Your task to perform on an android device: Is it going to rain this weekend? Image 0: 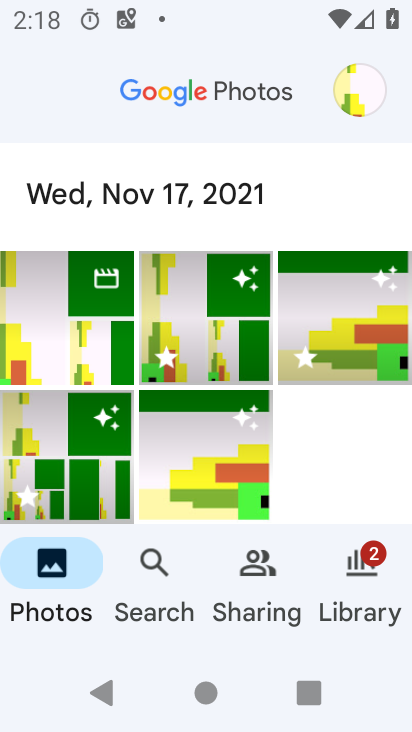
Step 0: press home button
Your task to perform on an android device: Is it going to rain this weekend? Image 1: 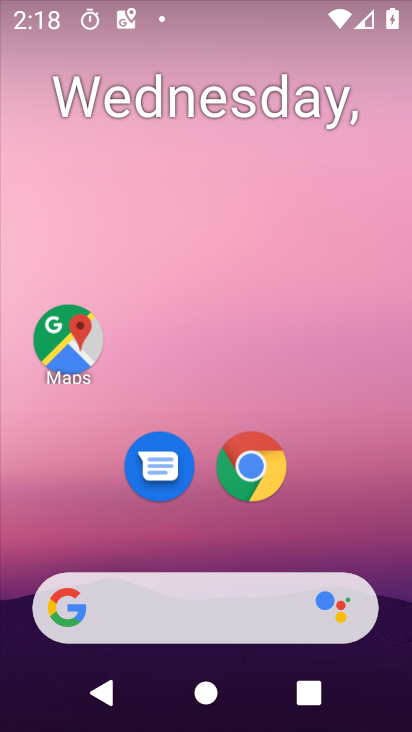
Step 1: click (194, 592)
Your task to perform on an android device: Is it going to rain this weekend? Image 2: 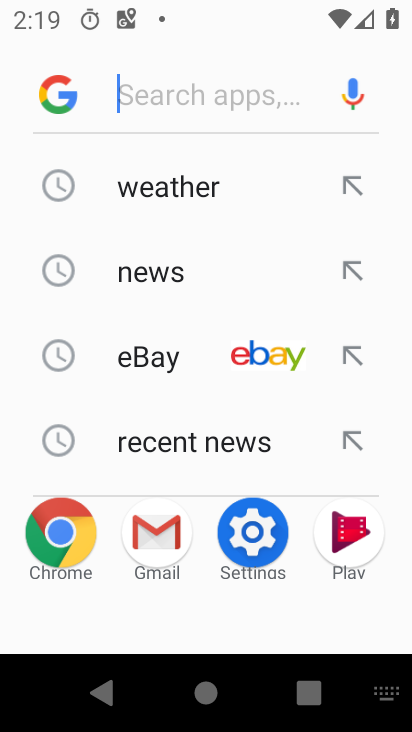
Step 2: click (218, 198)
Your task to perform on an android device: Is it going to rain this weekend? Image 3: 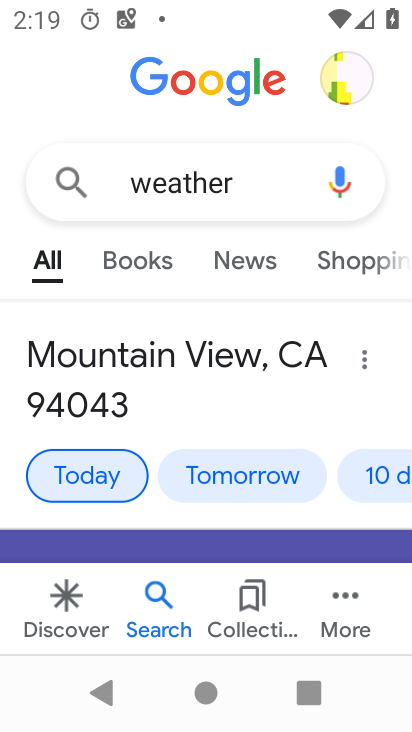
Step 3: click (389, 482)
Your task to perform on an android device: Is it going to rain this weekend? Image 4: 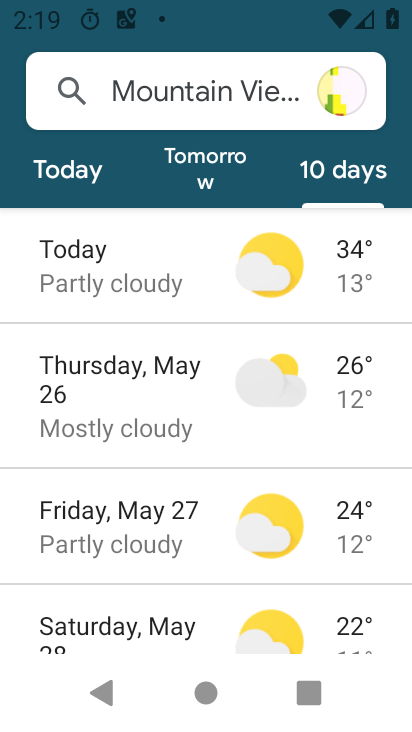
Step 4: task complete